Your task to perform on an android device: add a label to a message in the gmail app Image 0: 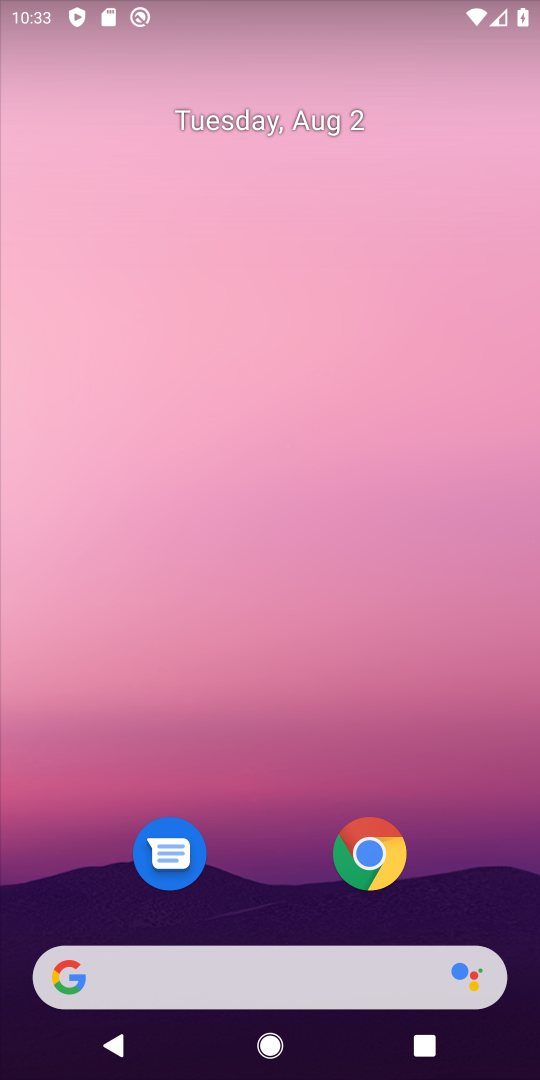
Step 0: drag from (452, 806) to (417, 211)
Your task to perform on an android device: add a label to a message in the gmail app Image 1: 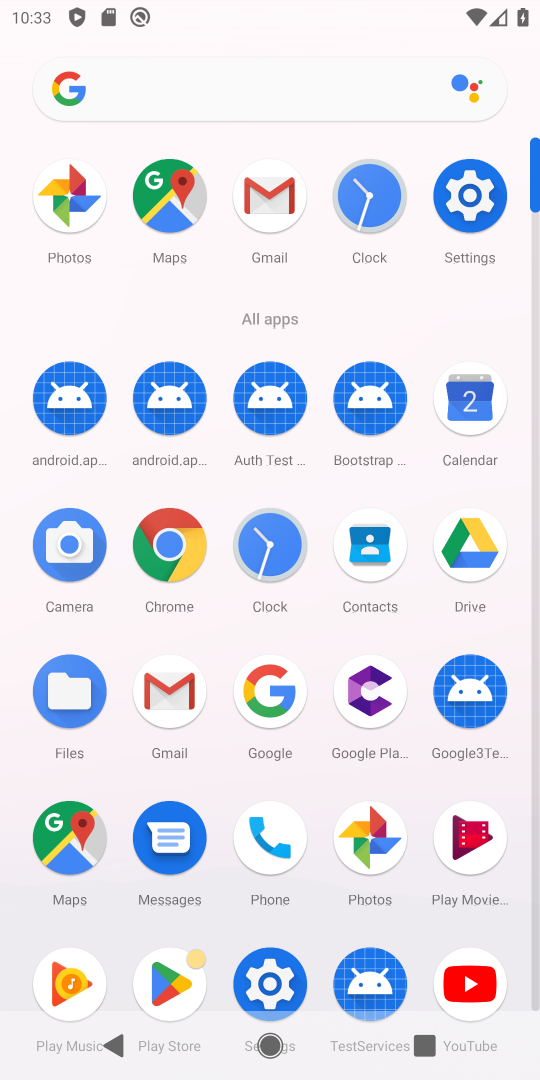
Step 1: click (147, 684)
Your task to perform on an android device: add a label to a message in the gmail app Image 2: 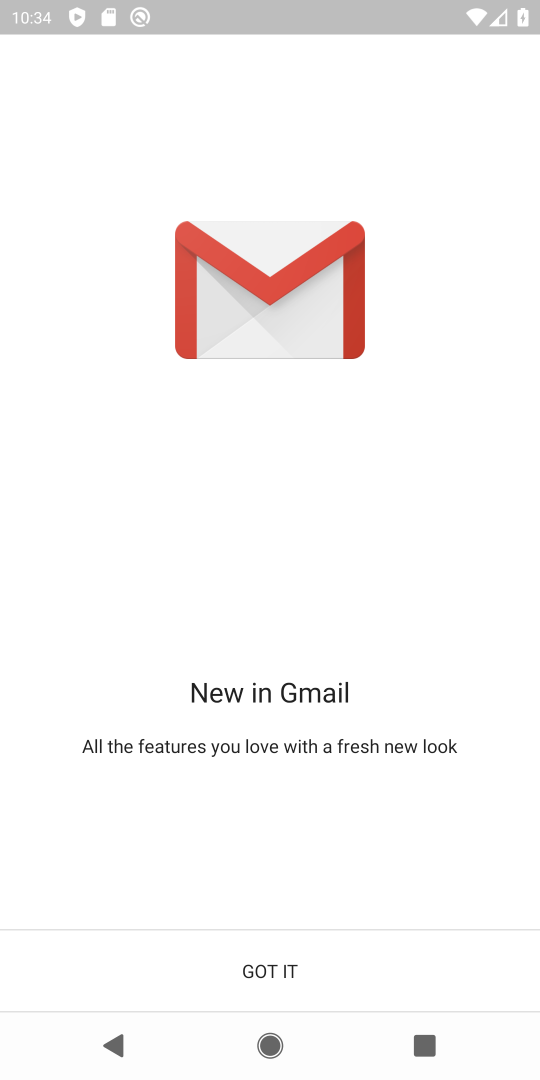
Step 2: click (238, 952)
Your task to perform on an android device: add a label to a message in the gmail app Image 3: 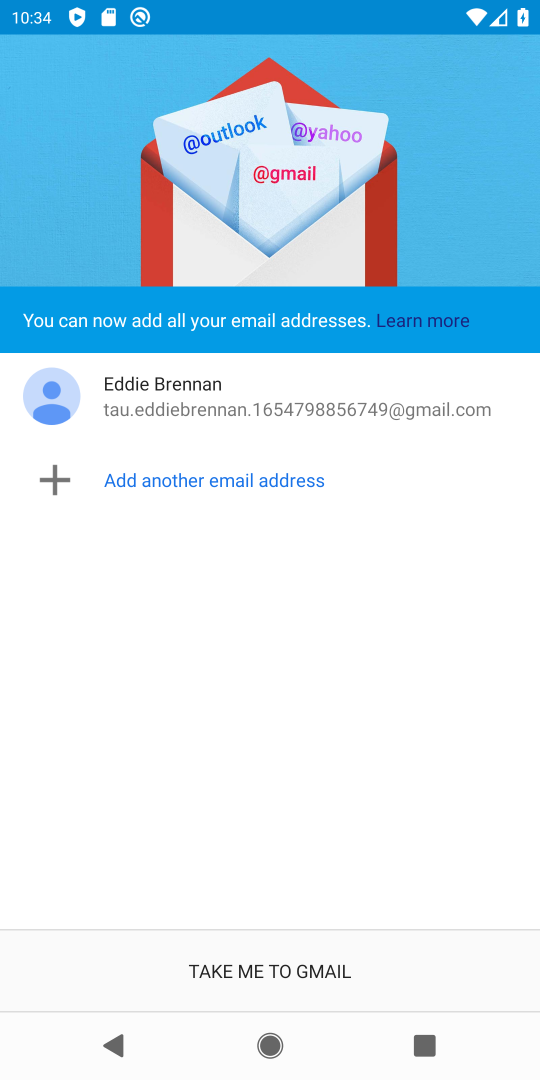
Step 3: click (294, 953)
Your task to perform on an android device: add a label to a message in the gmail app Image 4: 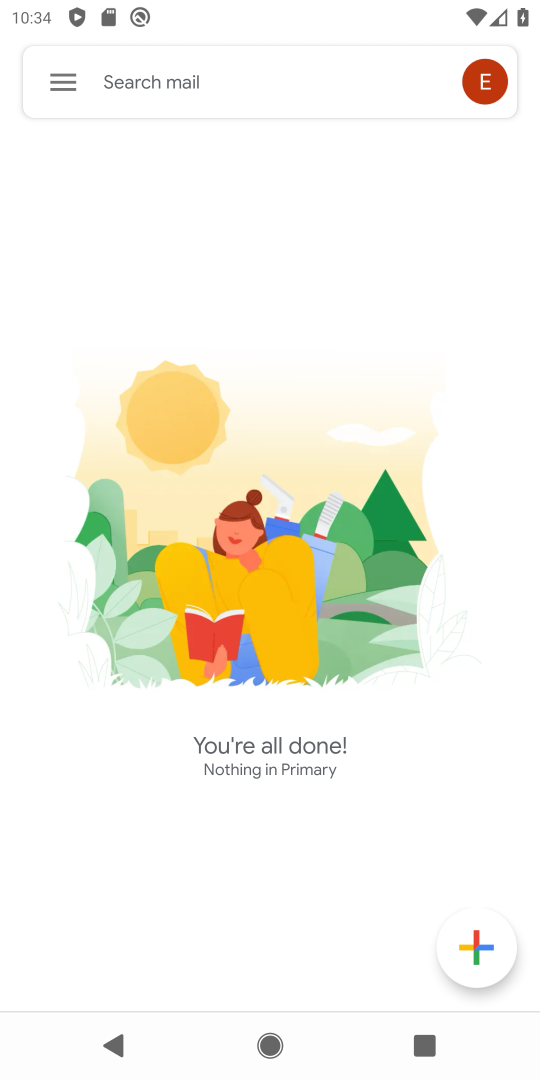
Step 4: click (66, 90)
Your task to perform on an android device: add a label to a message in the gmail app Image 5: 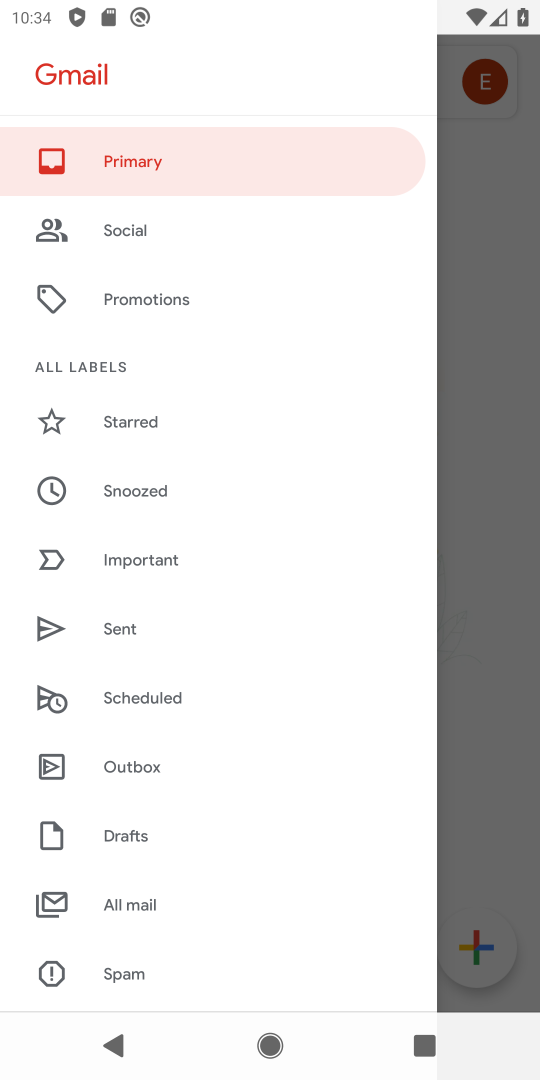
Step 5: click (138, 894)
Your task to perform on an android device: add a label to a message in the gmail app Image 6: 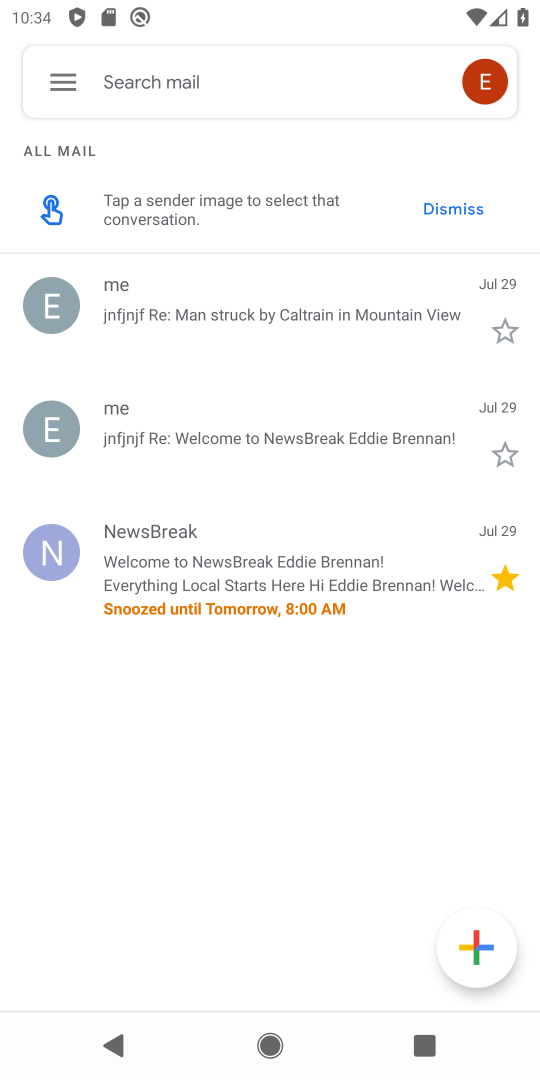
Step 6: click (356, 309)
Your task to perform on an android device: add a label to a message in the gmail app Image 7: 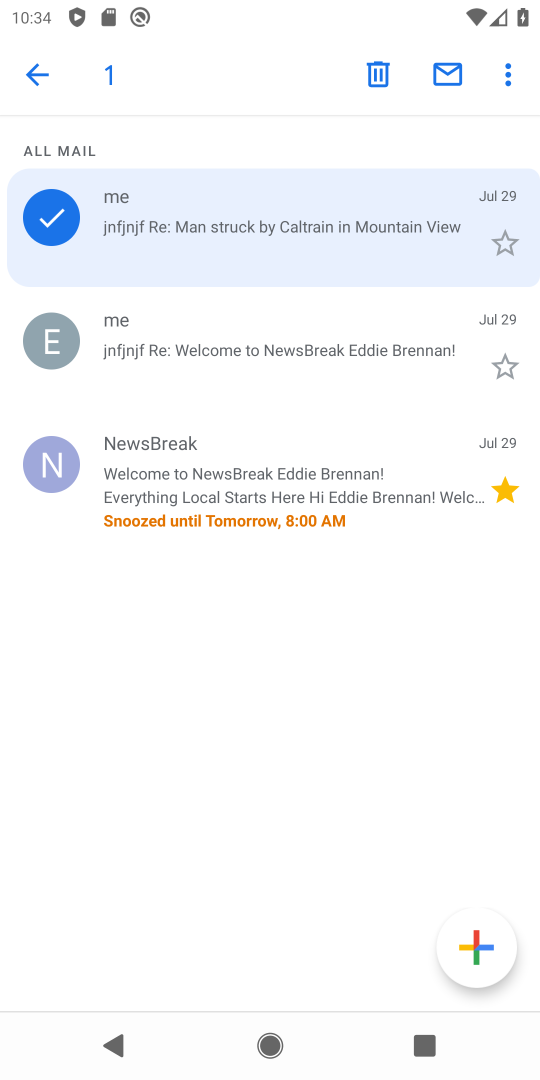
Step 7: click (513, 74)
Your task to perform on an android device: add a label to a message in the gmail app Image 8: 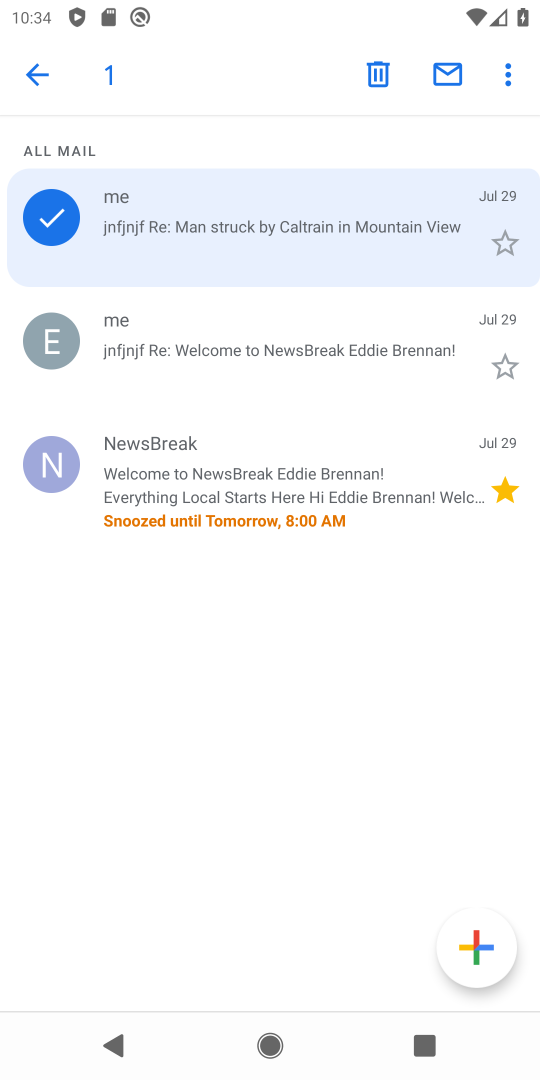
Step 8: click (507, 70)
Your task to perform on an android device: add a label to a message in the gmail app Image 9: 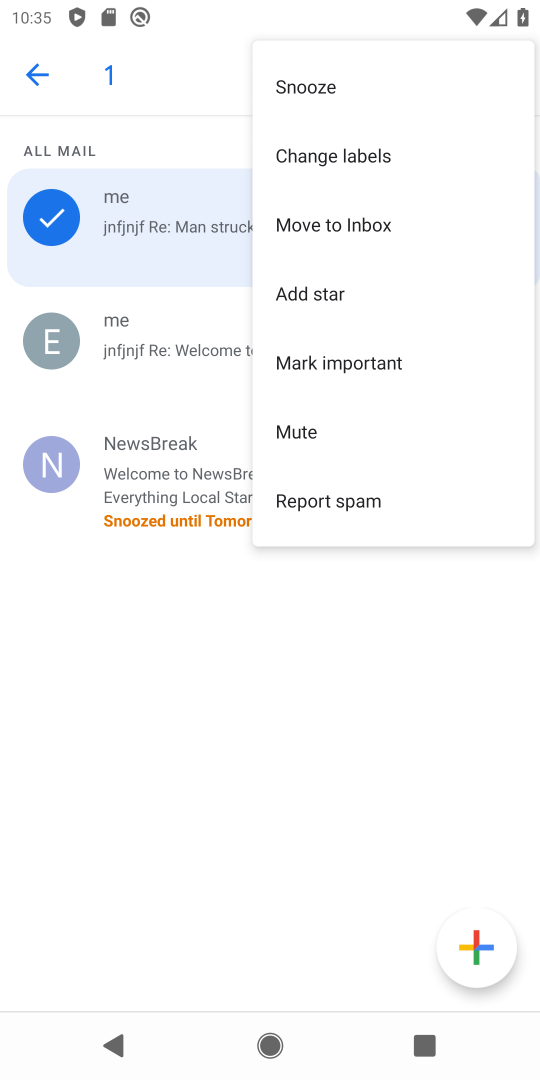
Step 9: click (379, 161)
Your task to perform on an android device: add a label to a message in the gmail app Image 10: 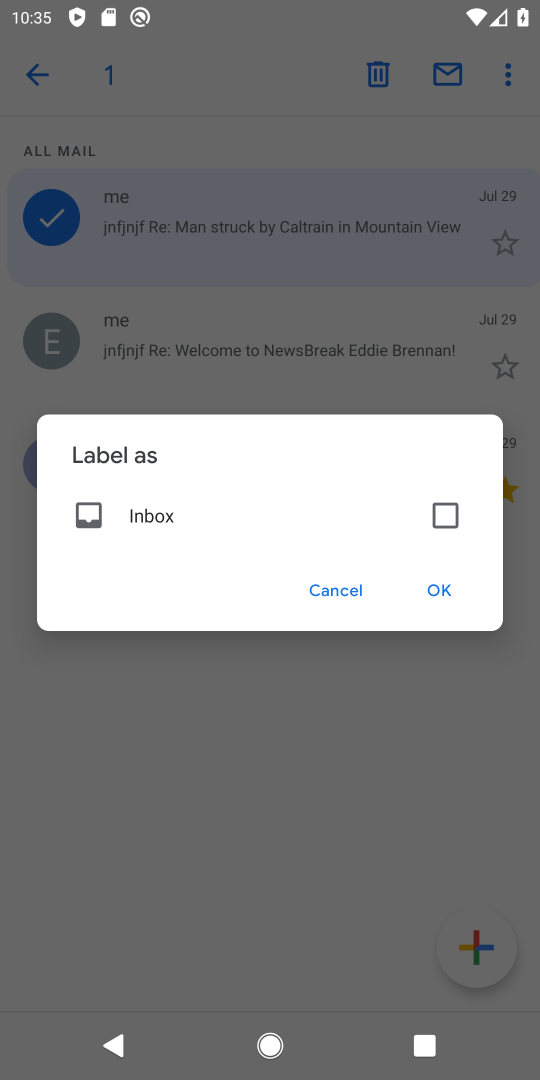
Step 10: click (443, 512)
Your task to perform on an android device: add a label to a message in the gmail app Image 11: 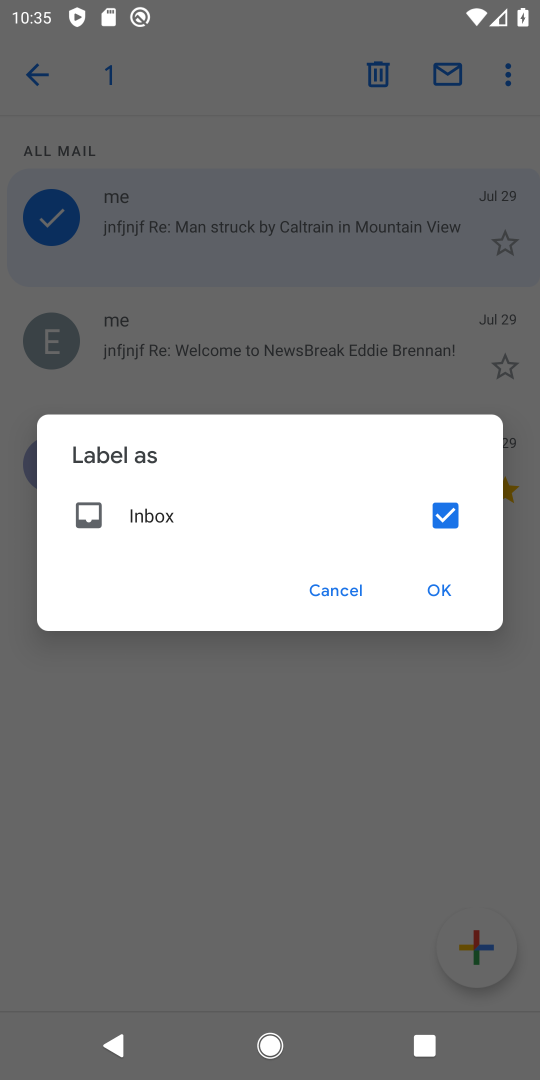
Step 11: click (440, 591)
Your task to perform on an android device: add a label to a message in the gmail app Image 12: 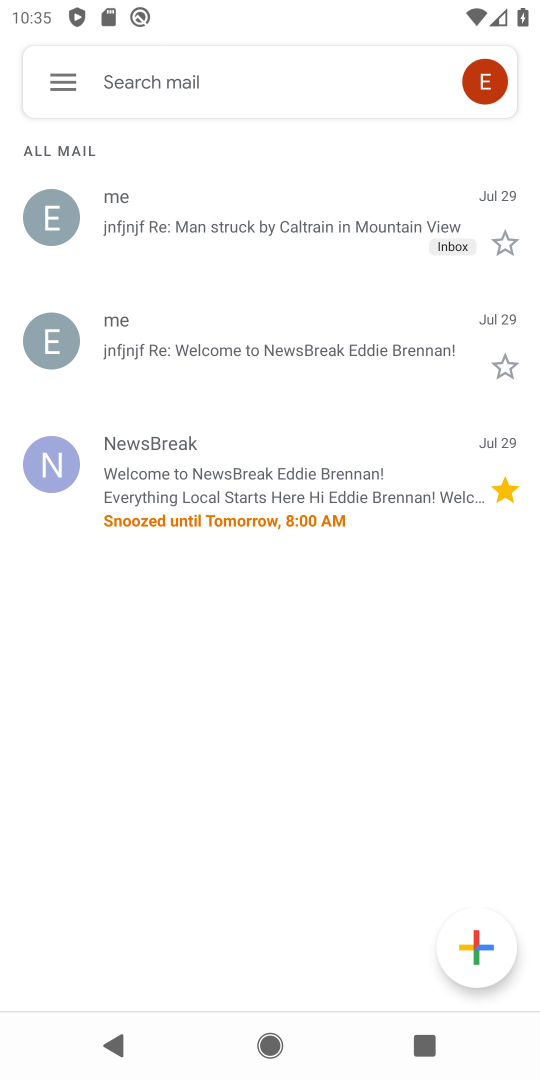
Step 12: task complete